Your task to perform on an android device: Go to battery settings Image 0: 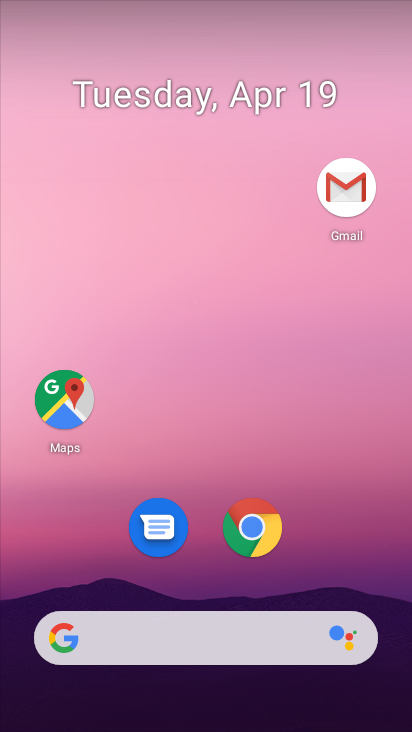
Step 0: press home button
Your task to perform on an android device: Go to battery settings Image 1: 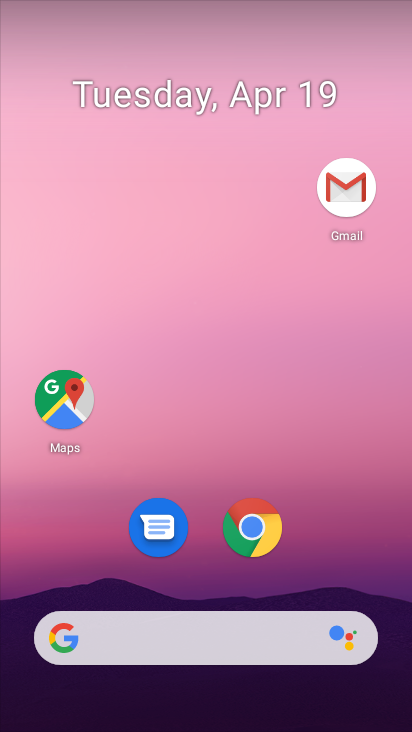
Step 1: drag from (358, 489) to (350, 36)
Your task to perform on an android device: Go to battery settings Image 2: 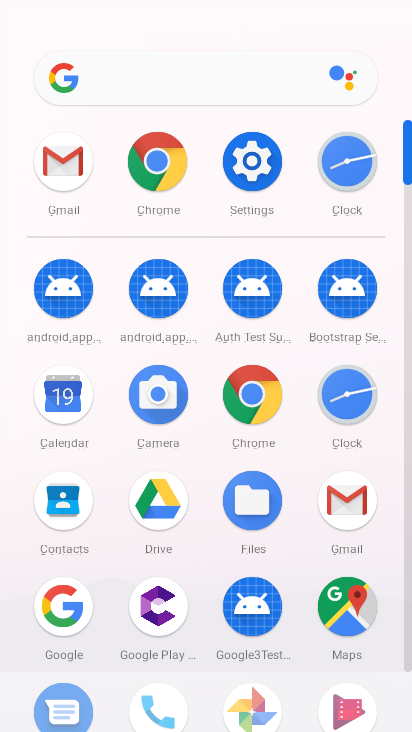
Step 2: click (256, 176)
Your task to perform on an android device: Go to battery settings Image 3: 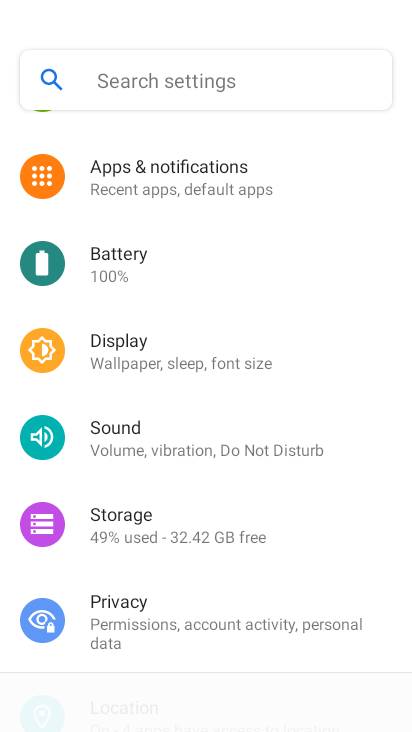
Step 3: click (266, 184)
Your task to perform on an android device: Go to battery settings Image 4: 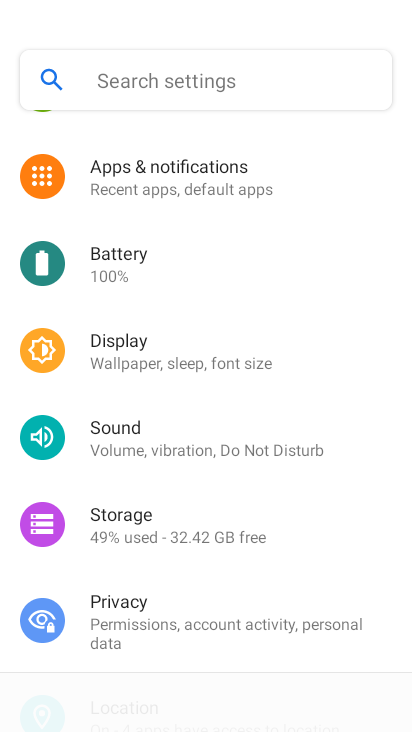
Step 4: click (133, 247)
Your task to perform on an android device: Go to battery settings Image 5: 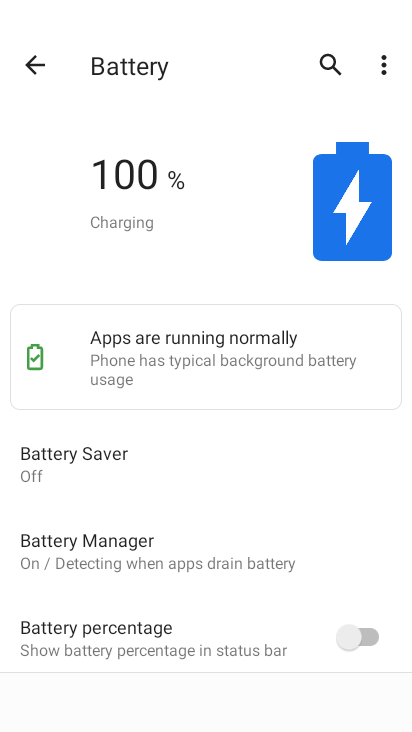
Step 5: task complete